Your task to perform on an android device: Open battery settings Image 0: 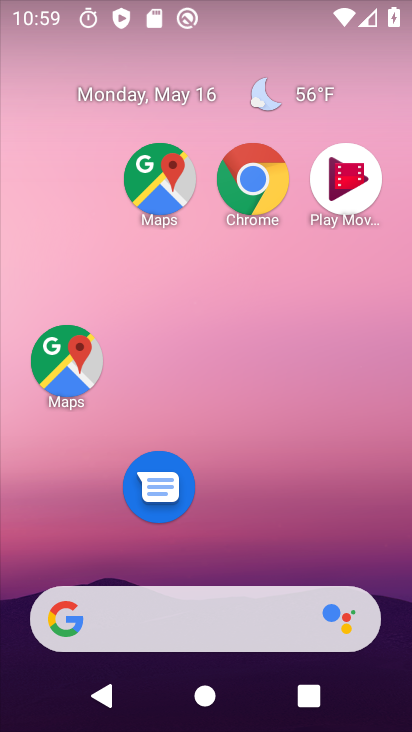
Step 0: drag from (268, 540) to (403, 328)
Your task to perform on an android device: Open battery settings Image 1: 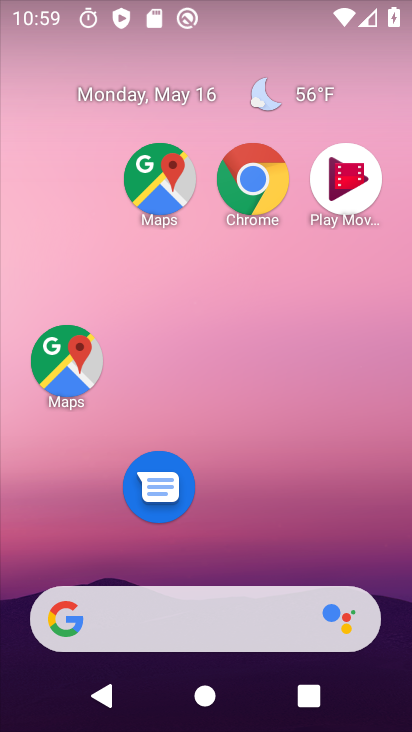
Step 1: drag from (221, 517) to (172, 27)
Your task to perform on an android device: Open battery settings Image 2: 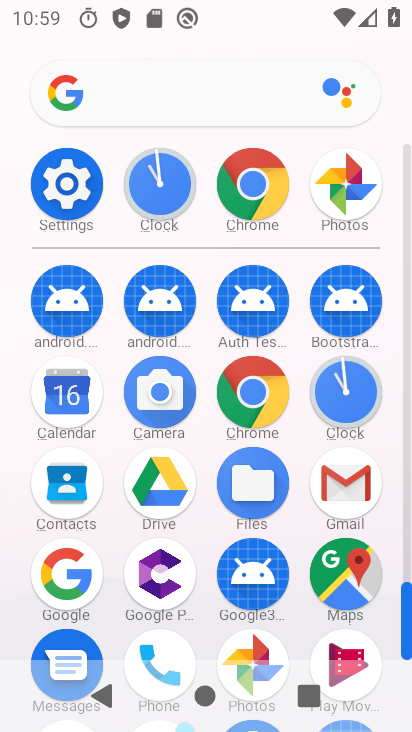
Step 2: click (150, 148)
Your task to perform on an android device: Open battery settings Image 3: 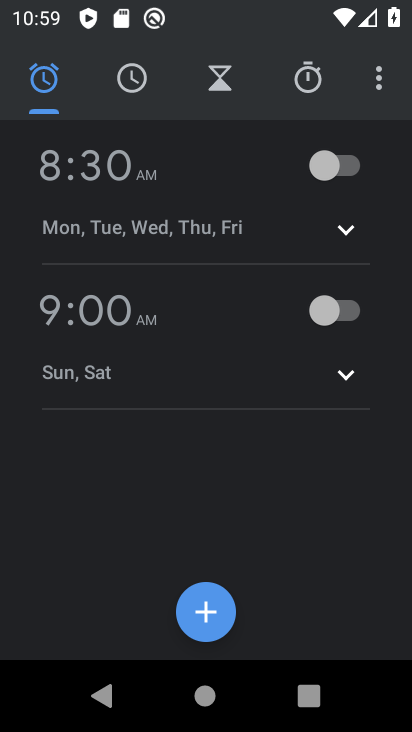
Step 3: press back button
Your task to perform on an android device: Open battery settings Image 4: 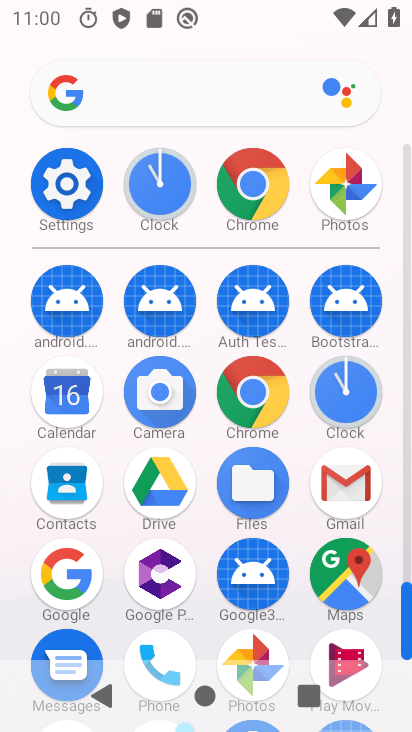
Step 4: click (57, 189)
Your task to perform on an android device: Open battery settings Image 5: 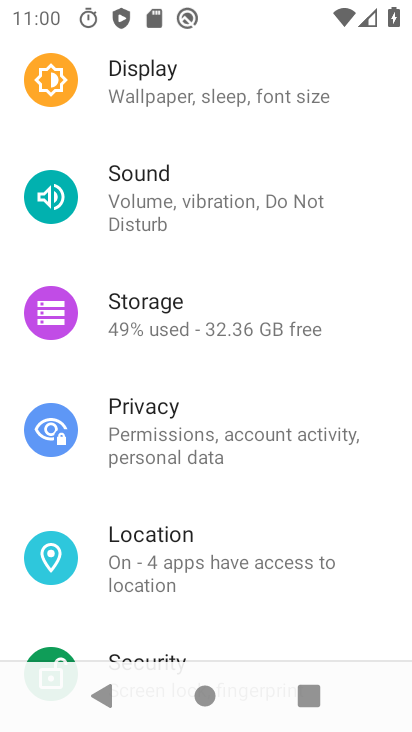
Step 5: drag from (188, 256) to (198, 603)
Your task to perform on an android device: Open battery settings Image 6: 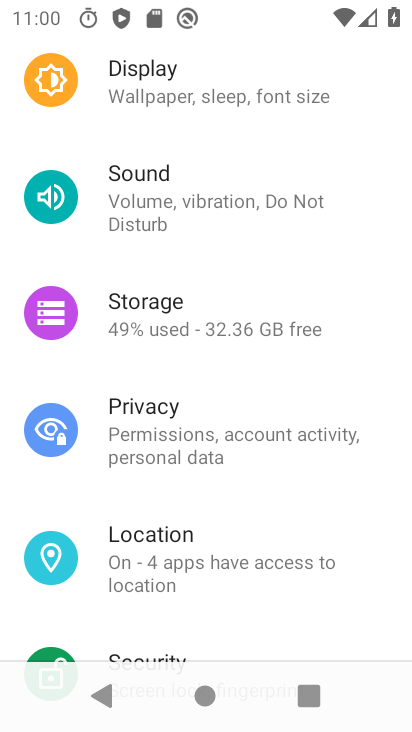
Step 6: drag from (193, 362) to (193, 518)
Your task to perform on an android device: Open battery settings Image 7: 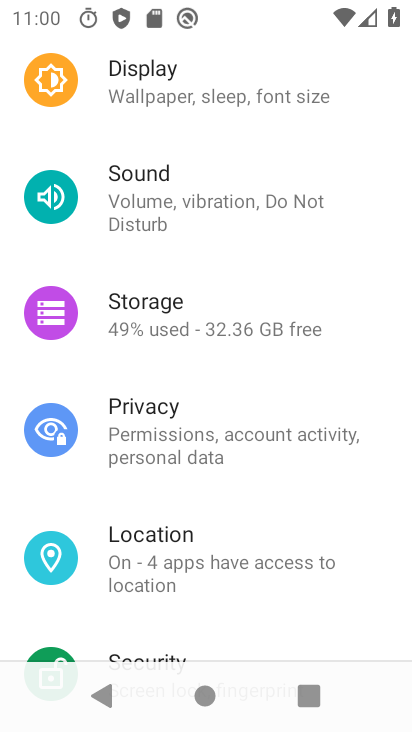
Step 7: drag from (193, 189) to (174, 391)
Your task to perform on an android device: Open battery settings Image 8: 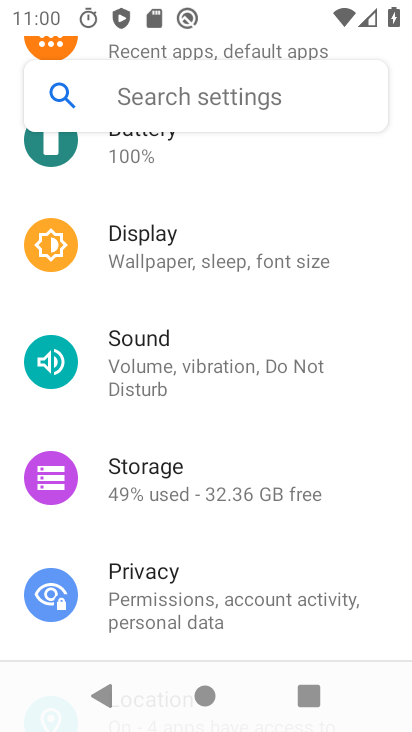
Step 8: click (131, 152)
Your task to perform on an android device: Open battery settings Image 9: 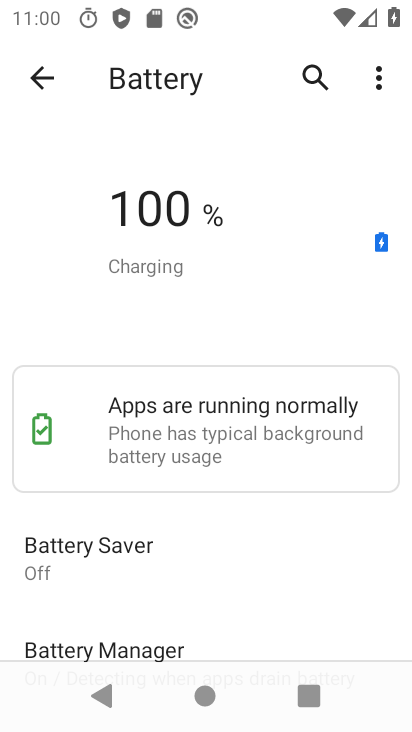
Step 9: task complete